Your task to perform on an android device: show emergency info Image 0: 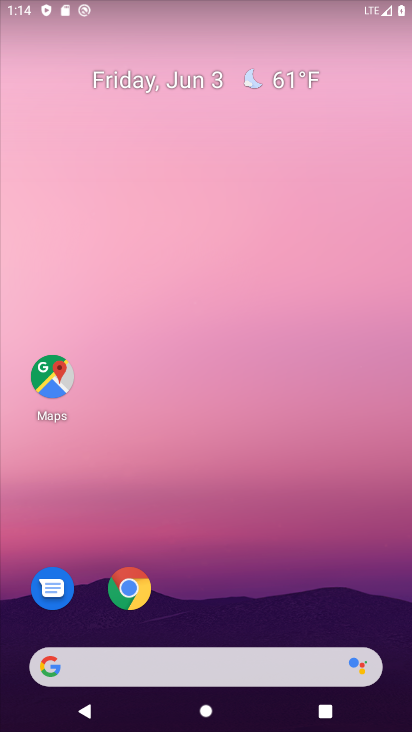
Step 0: drag from (204, 590) to (324, 105)
Your task to perform on an android device: show emergency info Image 1: 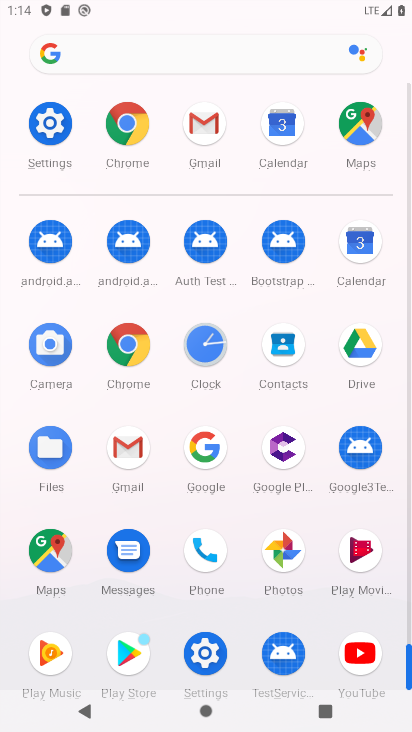
Step 1: click (202, 658)
Your task to perform on an android device: show emergency info Image 2: 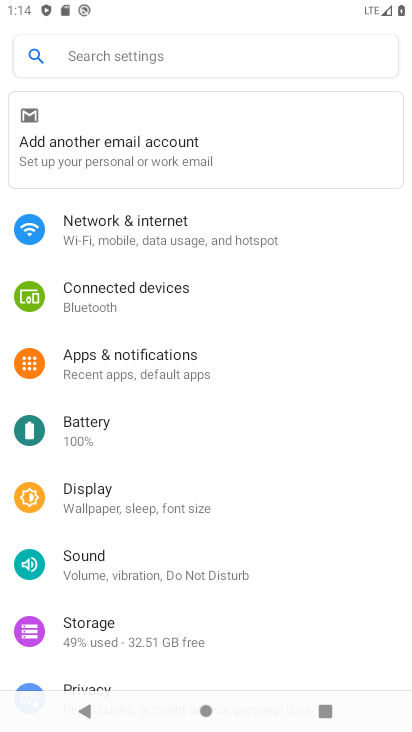
Step 2: drag from (231, 608) to (289, 183)
Your task to perform on an android device: show emergency info Image 3: 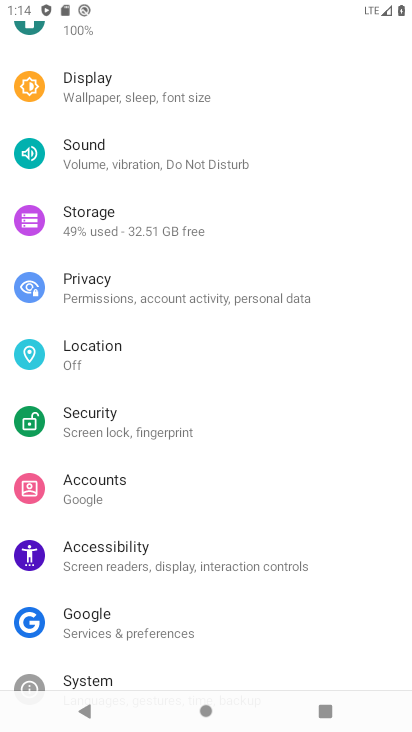
Step 3: drag from (275, 570) to (255, 56)
Your task to perform on an android device: show emergency info Image 4: 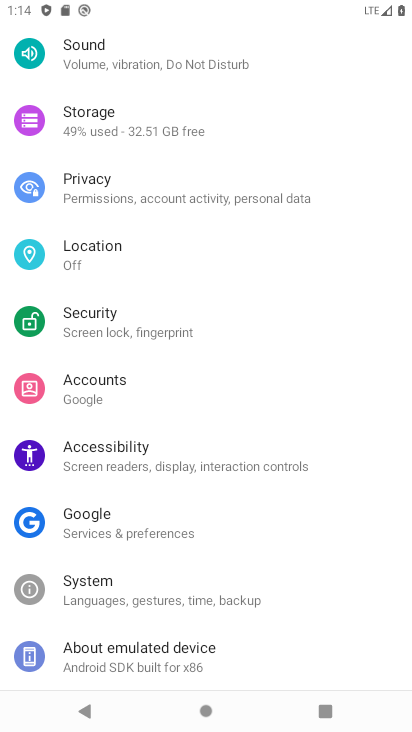
Step 4: click (194, 657)
Your task to perform on an android device: show emergency info Image 5: 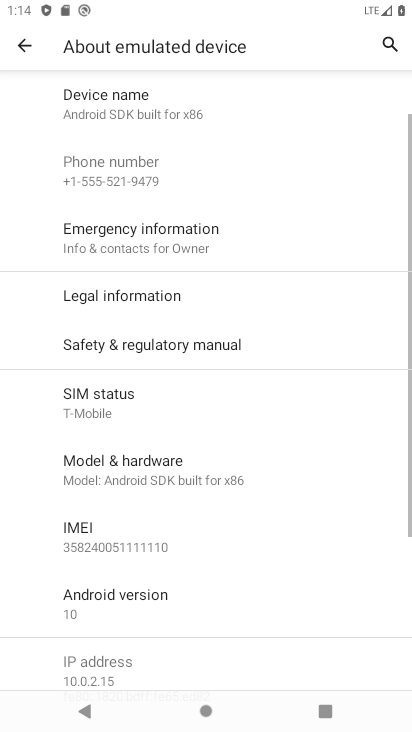
Step 5: click (200, 234)
Your task to perform on an android device: show emergency info Image 6: 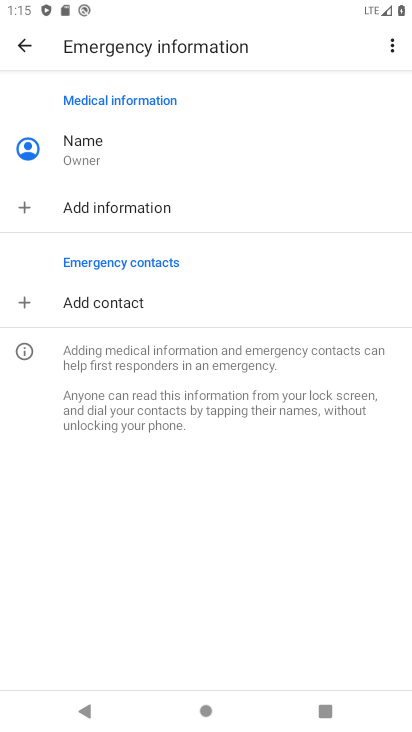
Step 6: task complete